Your task to perform on an android device: Open the web browser Image 0: 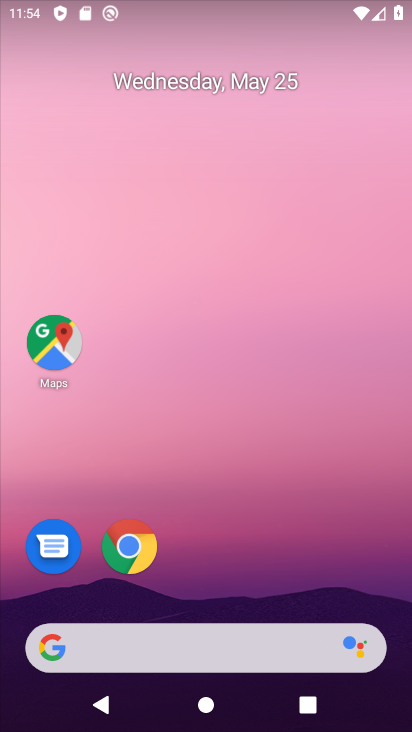
Step 0: click (191, 639)
Your task to perform on an android device: Open the web browser Image 1: 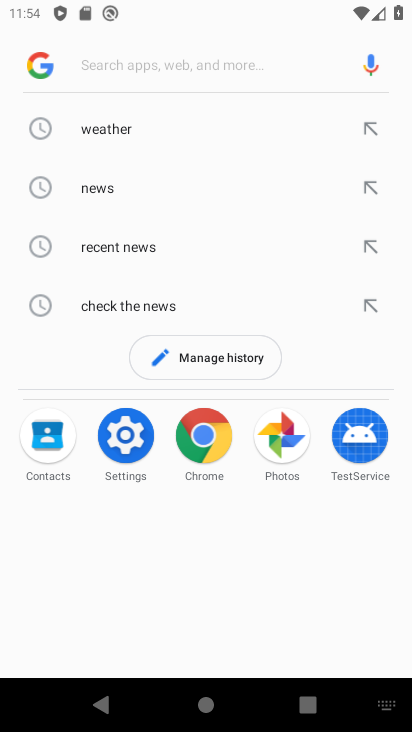
Step 1: task complete